Your task to perform on an android device: Turn on the flashlight Image 0: 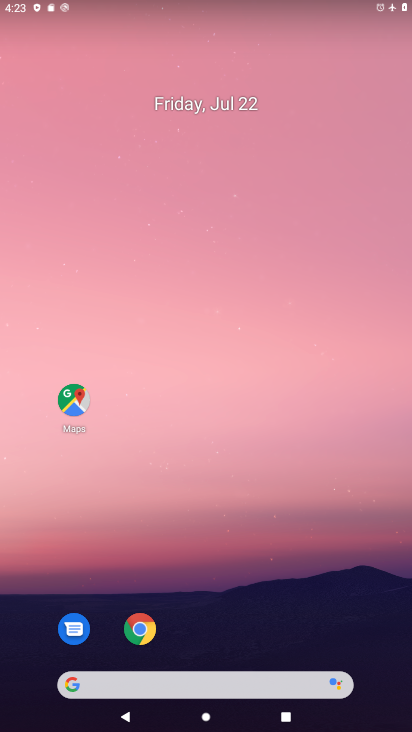
Step 0: drag from (330, 549) to (286, 45)
Your task to perform on an android device: Turn on the flashlight Image 1: 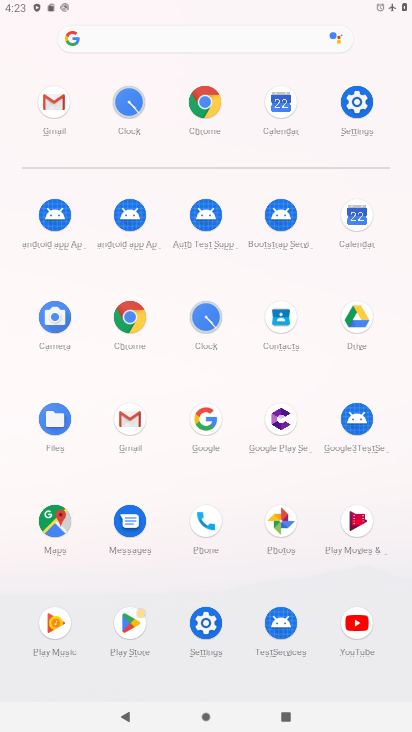
Step 1: click (351, 103)
Your task to perform on an android device: Turn on the flashlight Image 2: 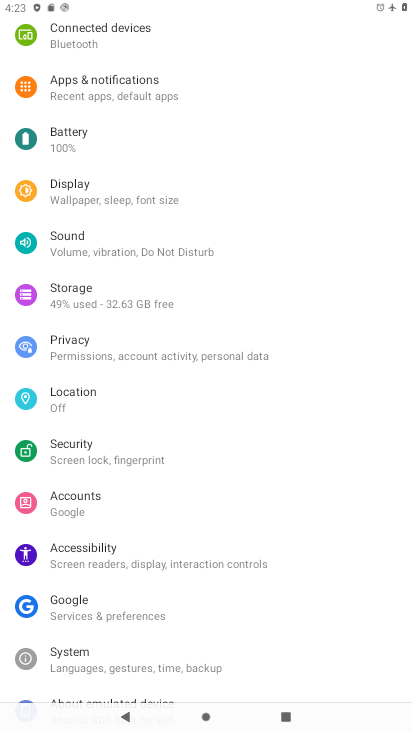
Step 2: click (95, 198)
Your task to perform on an android device: Turn on the flashlight Image 3: 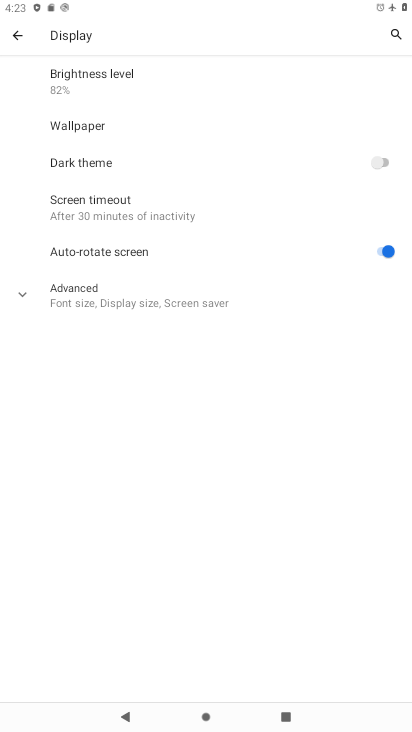
Step 3: task complete